Your task to perform on an android device: change your default location settings in chrome Image 0: 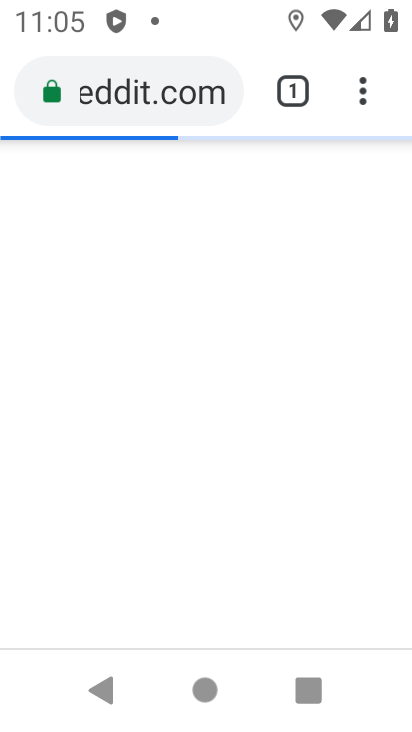
Step 0: press home button
Your task to perform on an android device: change your default location settings in chrome Image 1: 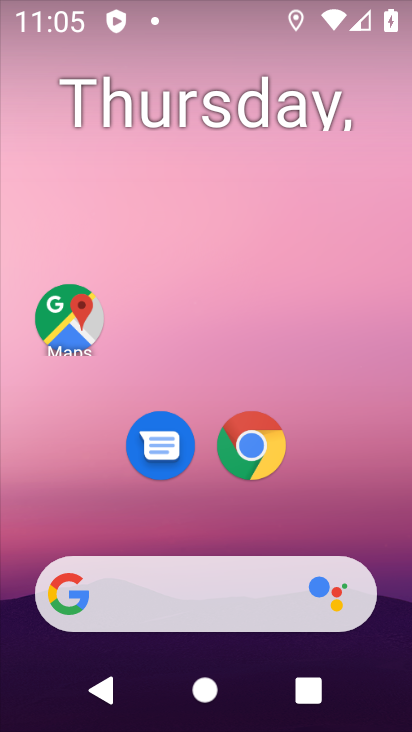
Step 1: click (251, 451)
Your task to perform on an android device: change your default location settings in chrome Image 2: 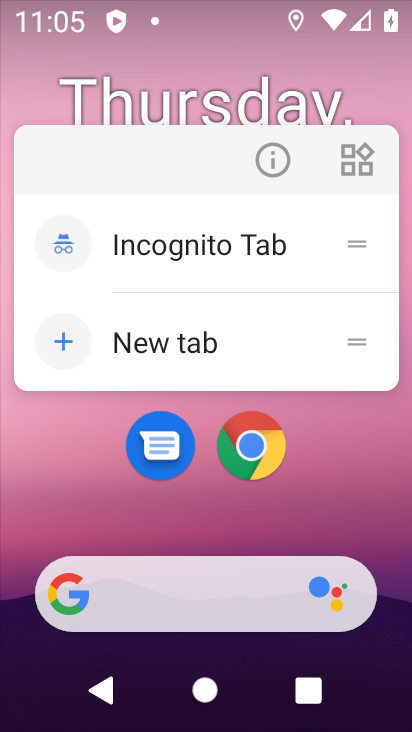
Step 2: click (250, 450)
Your task to perform on an android device: change your default location settings in chrome Image 3: 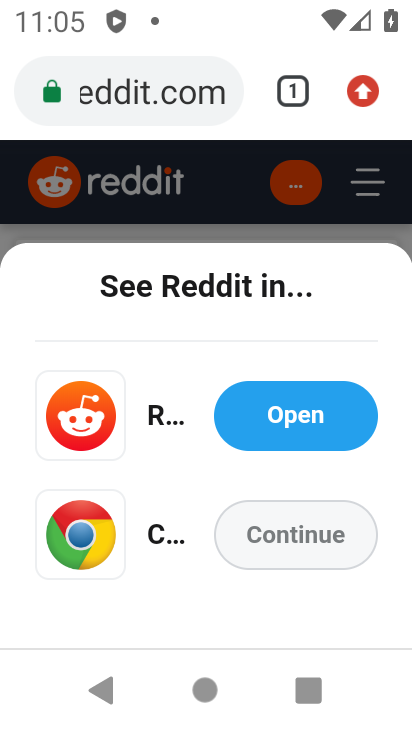
Step 3: press back button
Your task to perform on an android device: change your default location settings in chrome Image 4: 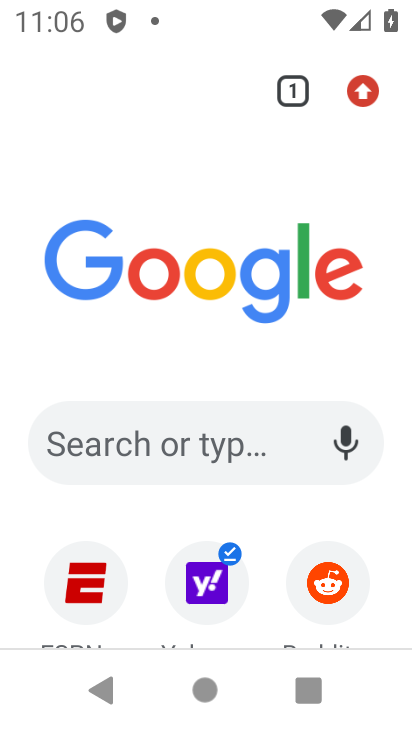
Step 4: click (365, 85)
Your task to perform on an android device: change your default location settings in chrome Image 5: 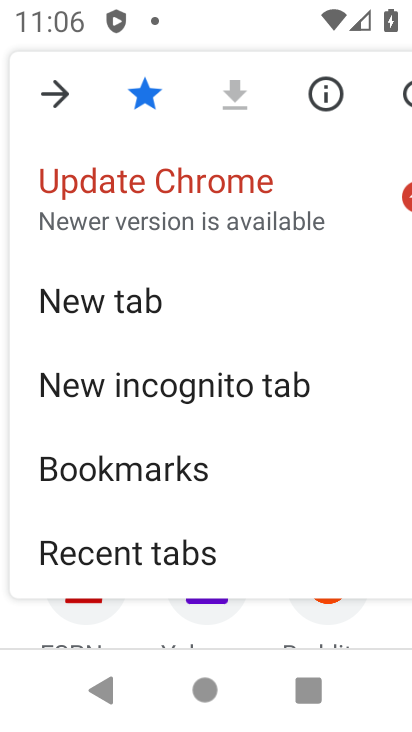
Step 5: drag from (186, 551) to (219, 170)
Your task to perform on an android device: change your default location settings in chrome Image 6: 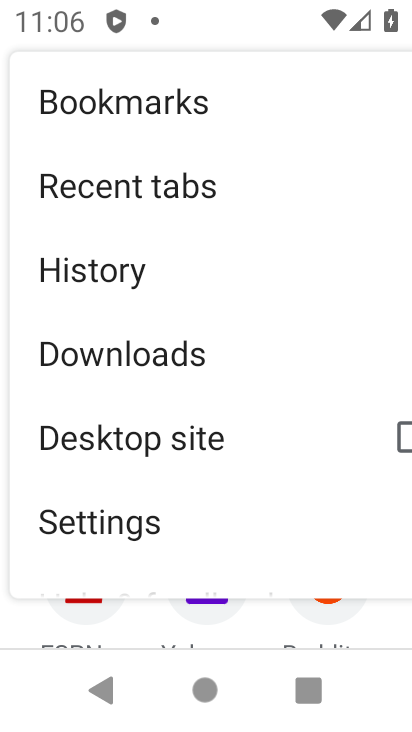
Step 6: drag from (155, 542) to (208, 145)
Your task to perform on an android device: change your default location settings in chrome Image 7: 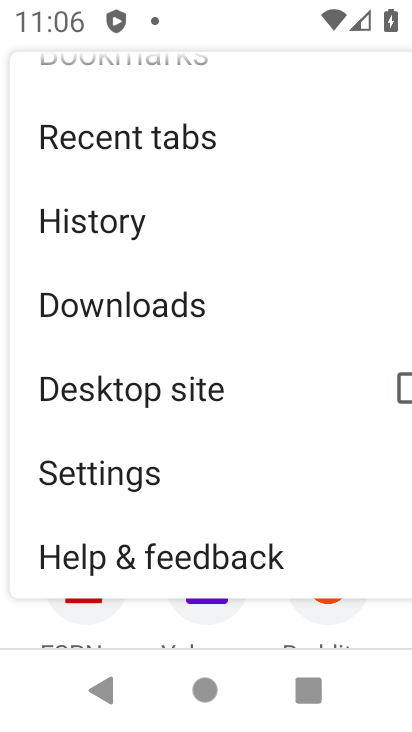
Step 7: click (162, 466)
Your task to perform on an android device: change your default location settings in chrome Image 8: 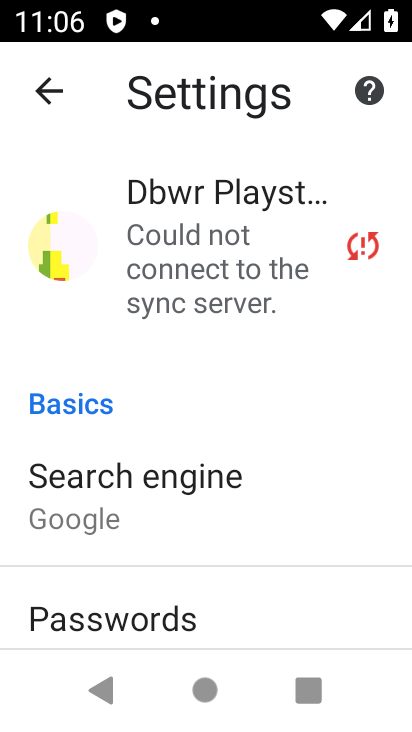
Step 8: click (168, 512)
Your task to perform on an android device: change your default location settings in chrome Image 9: 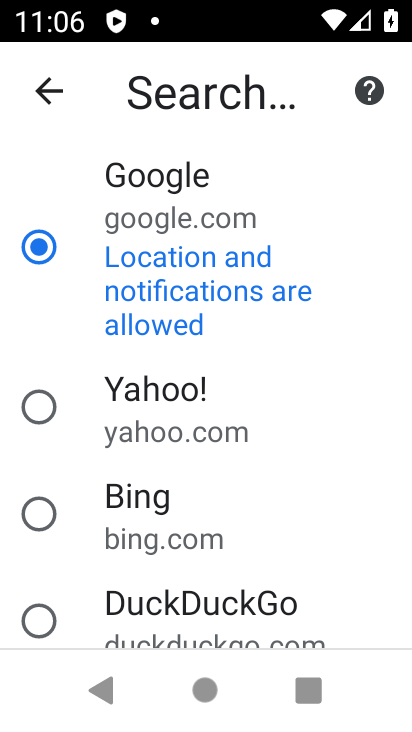
Step 9: click (155, 414)
Your task to perform on an android device: change your default location settings in chrome Image 10: 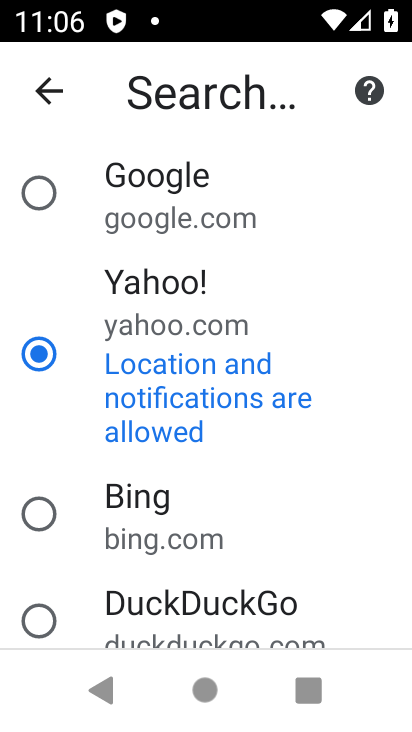
Step 10: task complete